Your task to perform on an android device: Open Google Maps Image 0: 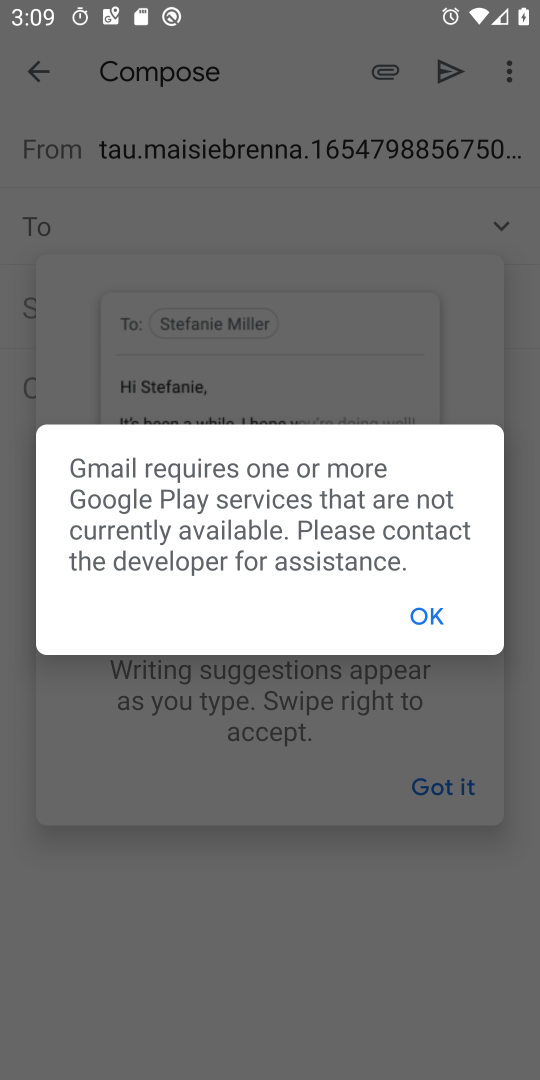
Step 0: press home button
Your task to perform on an android device: Open Google Maps Image 1: 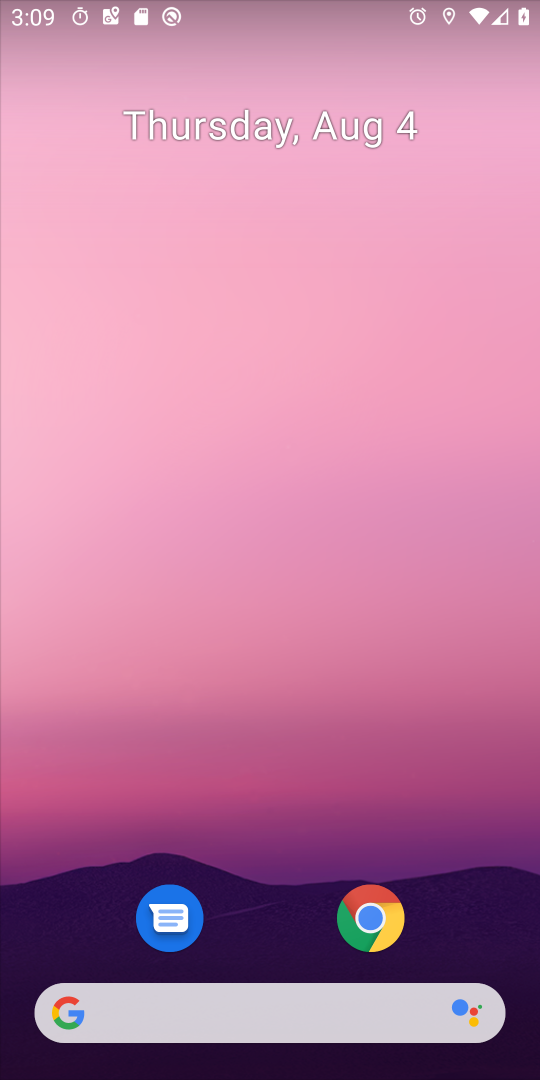
Step 1: drag from (251, 852) to (243, 402)
Your task to perform on an android device: Open Google Maps Image 2: 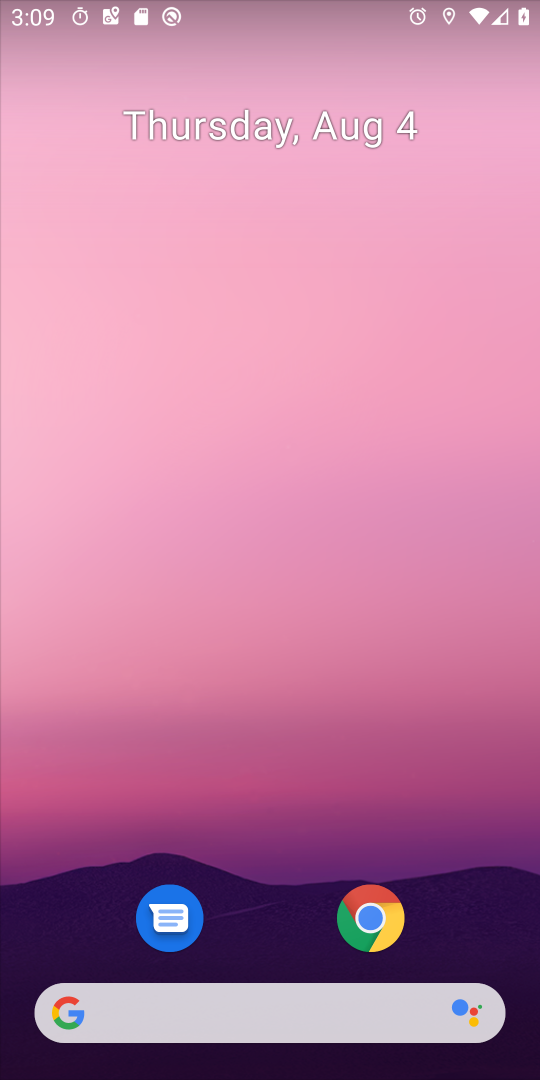
Step 2: drag from (289, 852) to (253, 315)
Your task to perform on an android device: Open Google Maps Image 3: 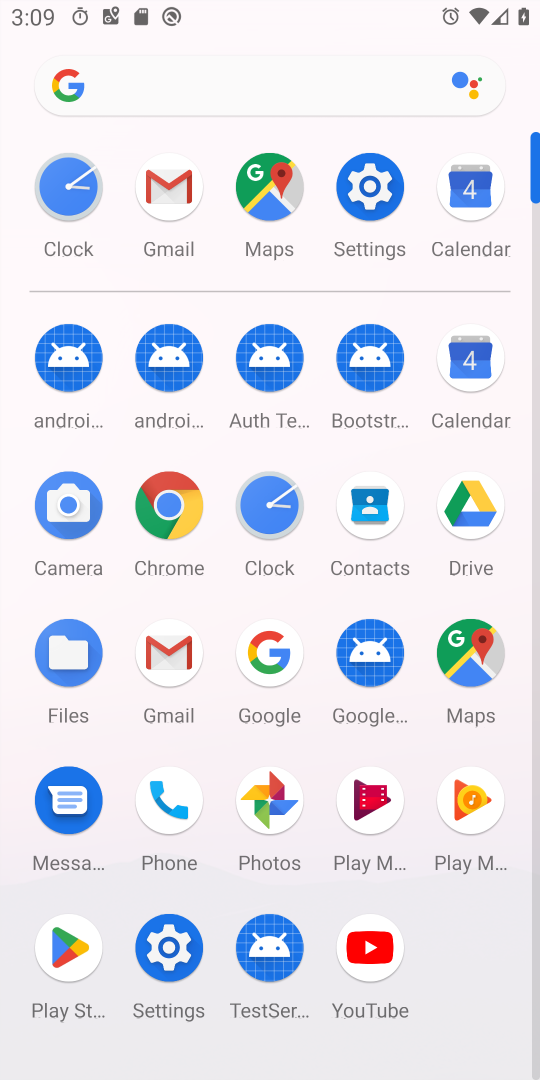
Step 3: click (268, 193)
Your task to perform on an android device: Open Google Maps Image 4: 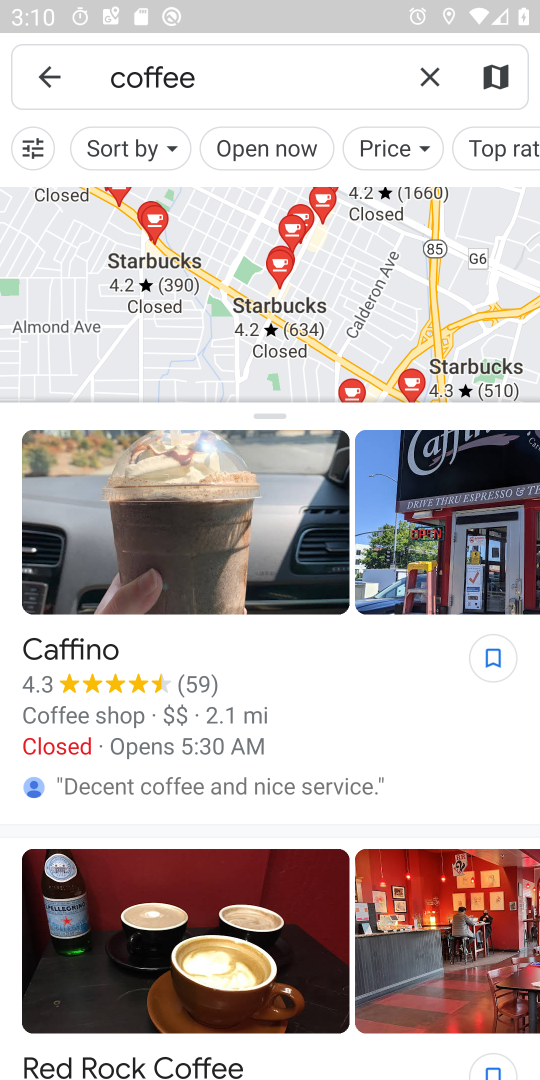
Step 4: task complete